Your task to perform on an android device: When is my next appointment? Image 0: 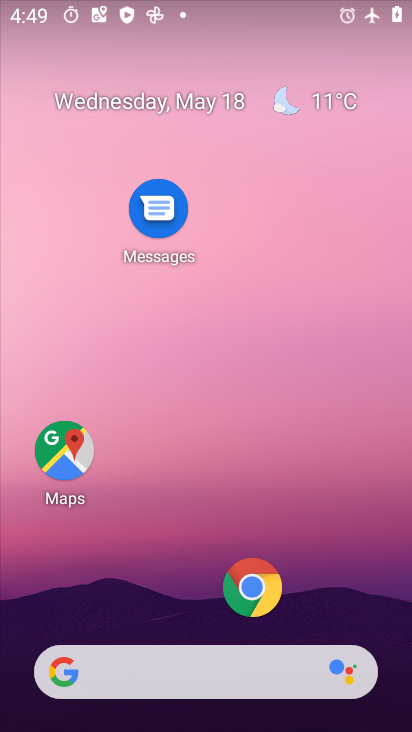
Step 0: drag from (298, 669) to (177, 1)
Your task to perform on an android device: When is my next appointment? Image 1: 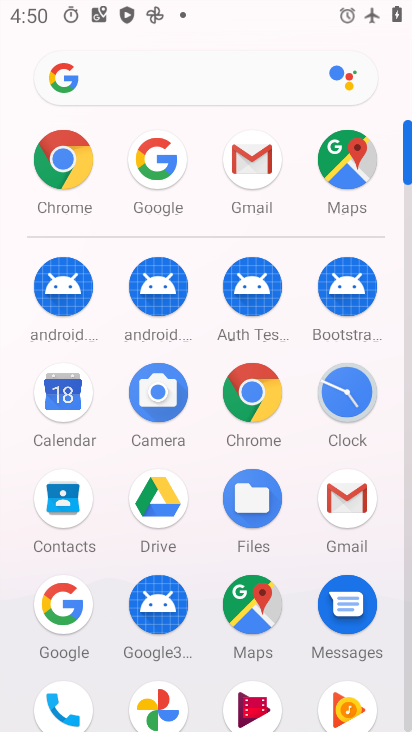
Step 1: click (67, 432)
Your task to perform on an android device: When is my next appointment? Image 2: 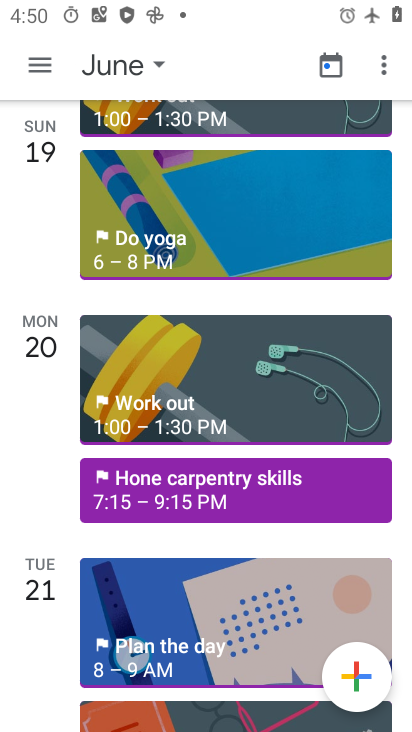
Step 2: click (40, 70)
Your task to perform on an android device: When is my next appointment? Image 3: 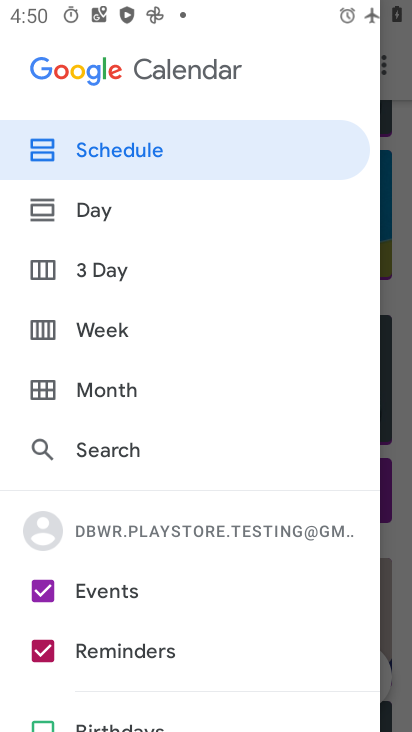
Step 3: task complete